Your task to perform on an android device: Open sound settings Image 0: 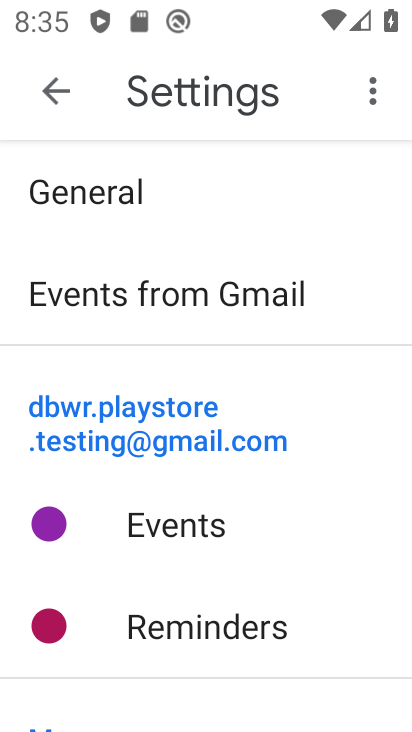
Step 0: press home button
Your task to perform on an android device: Open sound settings Image 1: 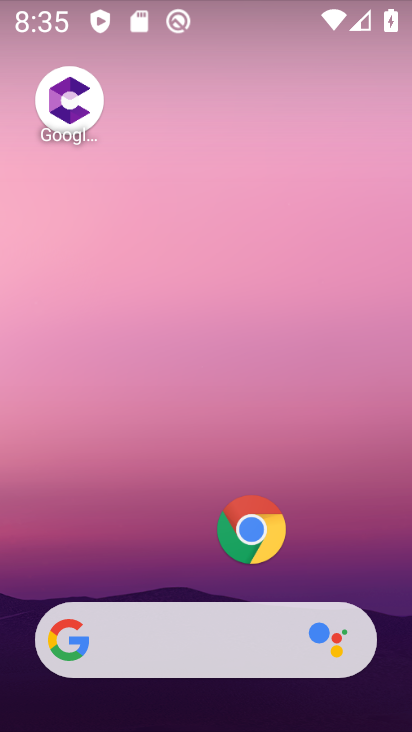
Step 1: drag from (189, 574) to (19, 3)
Your task to perform on an android device: Open sound settings Image 2: 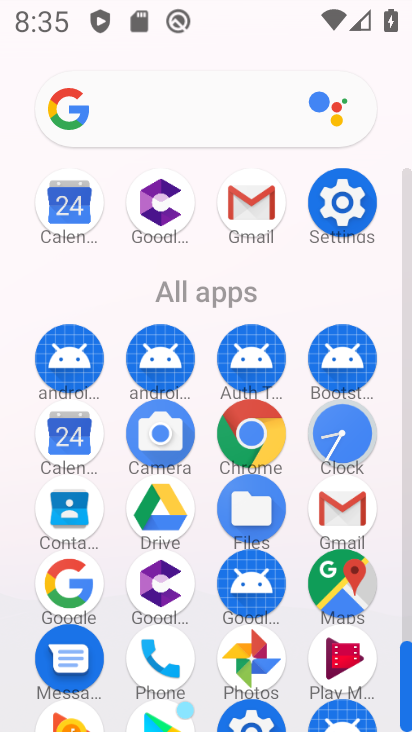
Step 2: click (336, 193)
Your task to perform on an android device: Open sound settings Image 3: 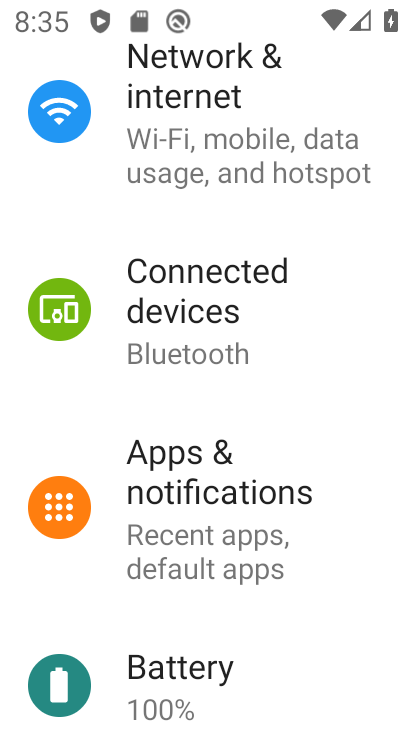
Step 3: drag from (207, 631) to (213, 154)
Your task to perform on an android device: Open sound settings Image 4: 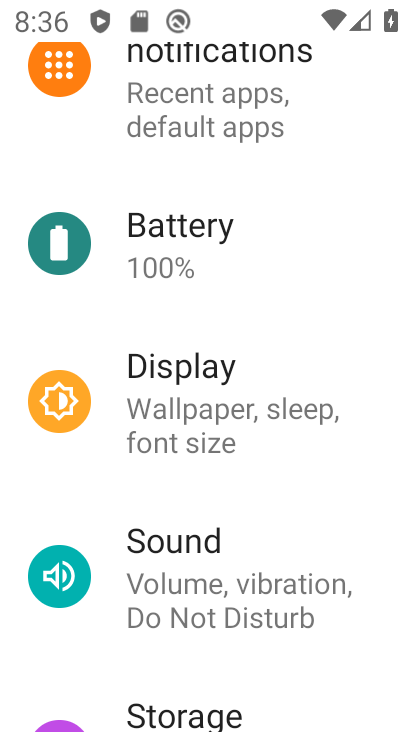
Step 4: click (222, 569)
Your task to perform on an android device: Open sound settings Image 5: 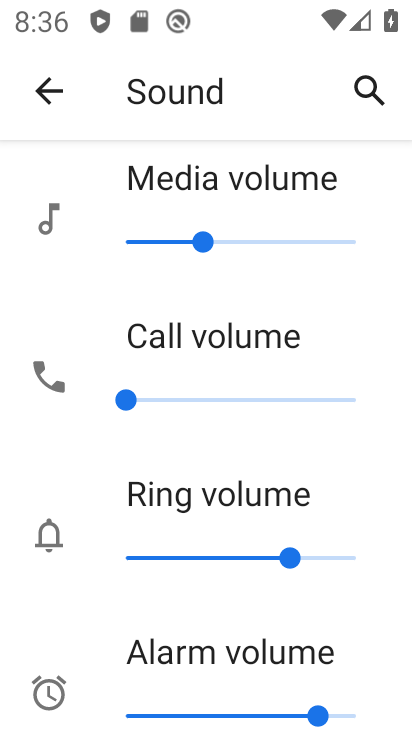
Step 5: drag from (233, 624) to (240, 168)
Your task to perform on an android device: Open sound settings Image 6: 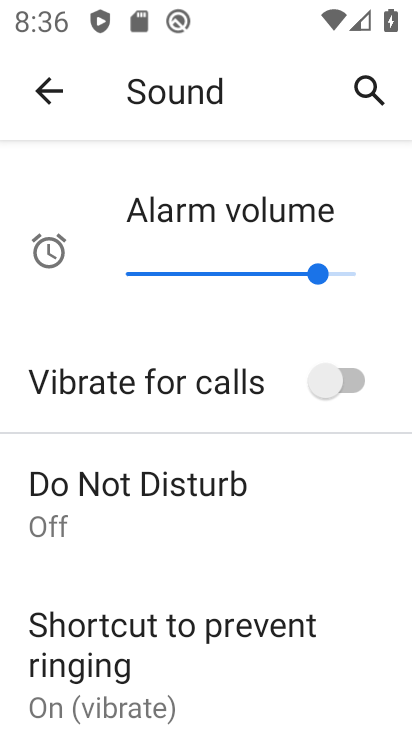
Step 6: drag from (225, 591) to (231, 165)
Your task to perform on an android device: Open sound settings Image 7: 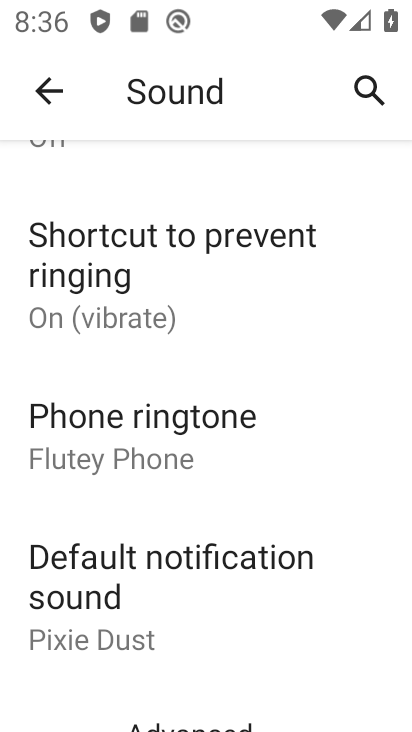
Step 7: drag from (204, 619) to (223, 269)
Your task to perform on an android device: Open sound settings Image 8: 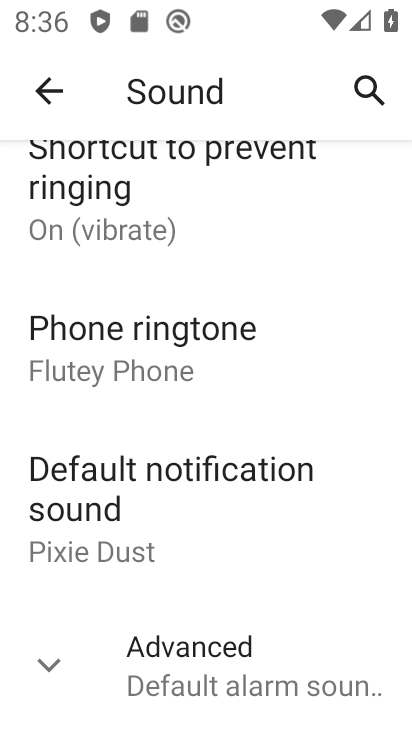
Step 8: click (46, 659)
Your task to perform on an android device: Open sound settings Image 9: 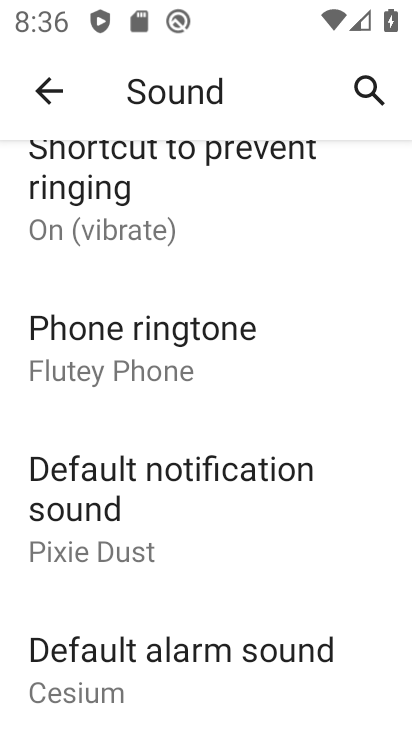
Step 9: task complete